Your task to perform on an android device: Add "lenovo thinkpad" to the cart on walmart, then select checkout. Image 0: 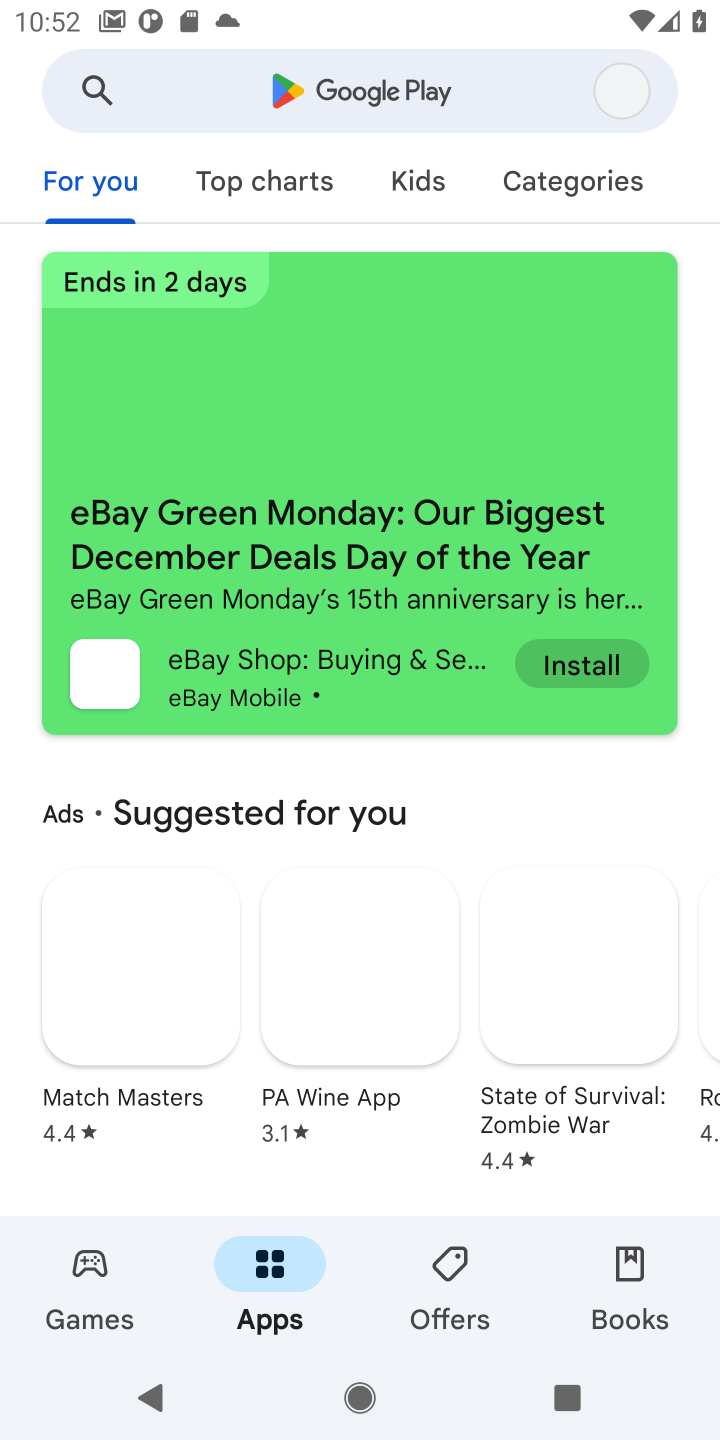
Step 0: click (378, 1209)
Your task to perform on an android device: Add "lenovo thinkpad" to the cart on walmart, then select checkout. Image 1: 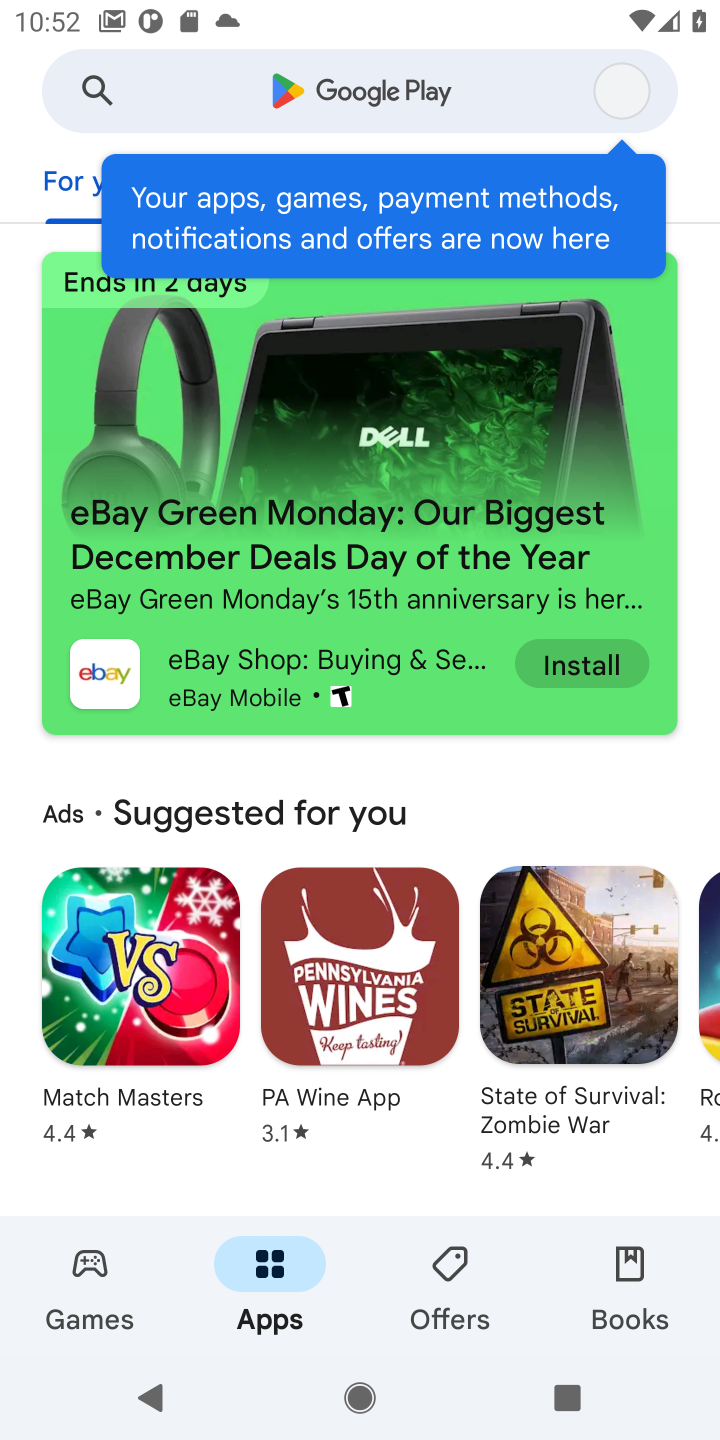
Step 1: press home button
Your task to perform on an android device: Add "lenovo thinkpad" to the cart on walmart, then select checkout. Image 2: 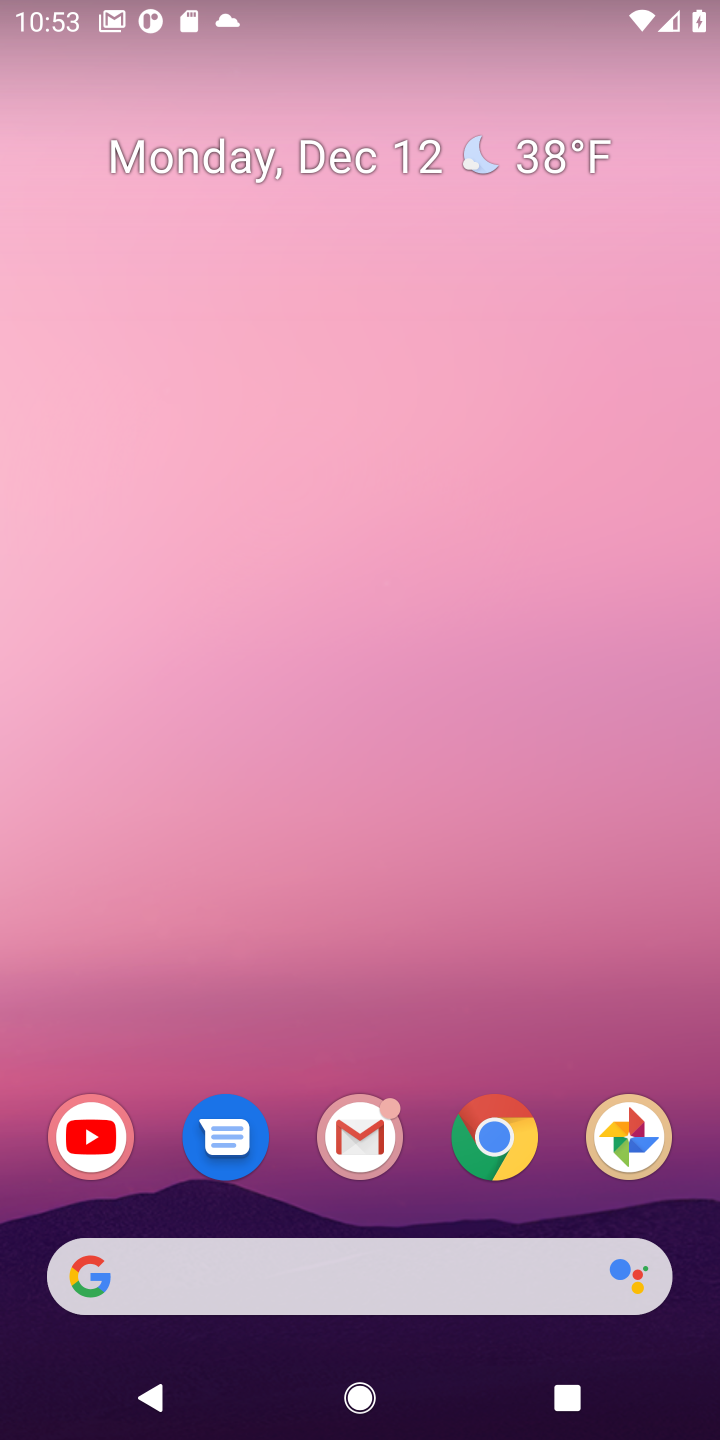
Step 2: click (328, 1270)
Your task to perform on an android device: Add "lenovo thinkpad" to the cart on walmart, then select checkout. Image 3: 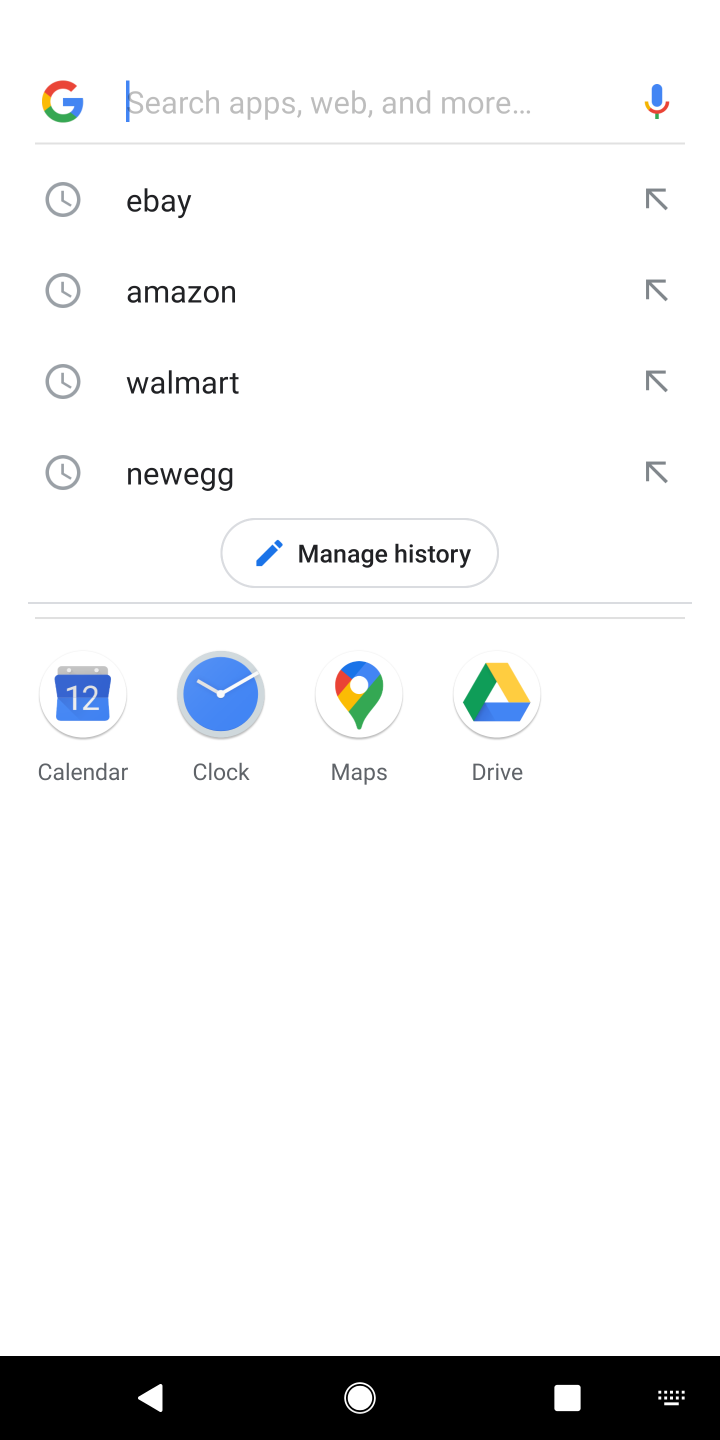
Step 3: click (159, 370)
Your task to perform on an android device: Add "lenovo thinkpad" to the cart on walmart, then select checkout. Image 4: 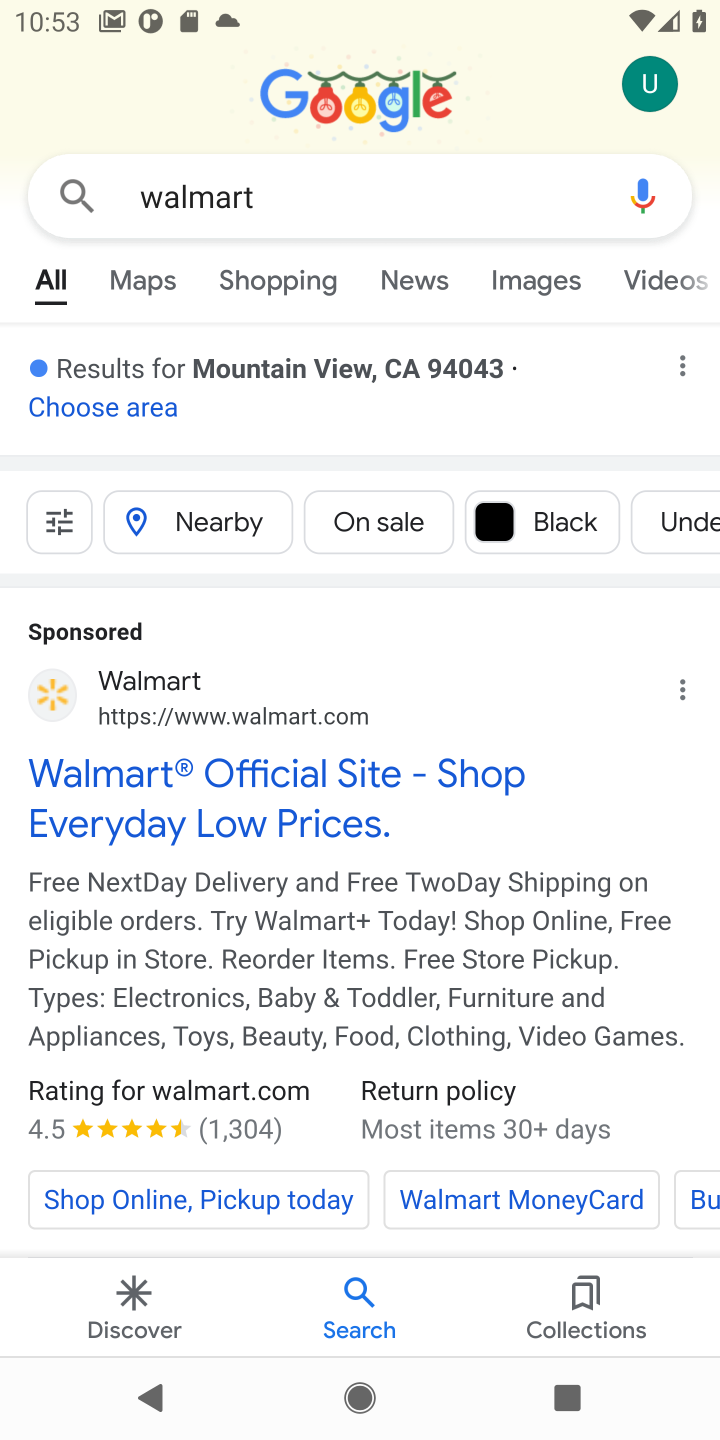
Step 4: click (193, 756)
Your task to perform on an android device: Add "lenovo thinkpad" to the cart on walmart, then select checkout. Image 5: 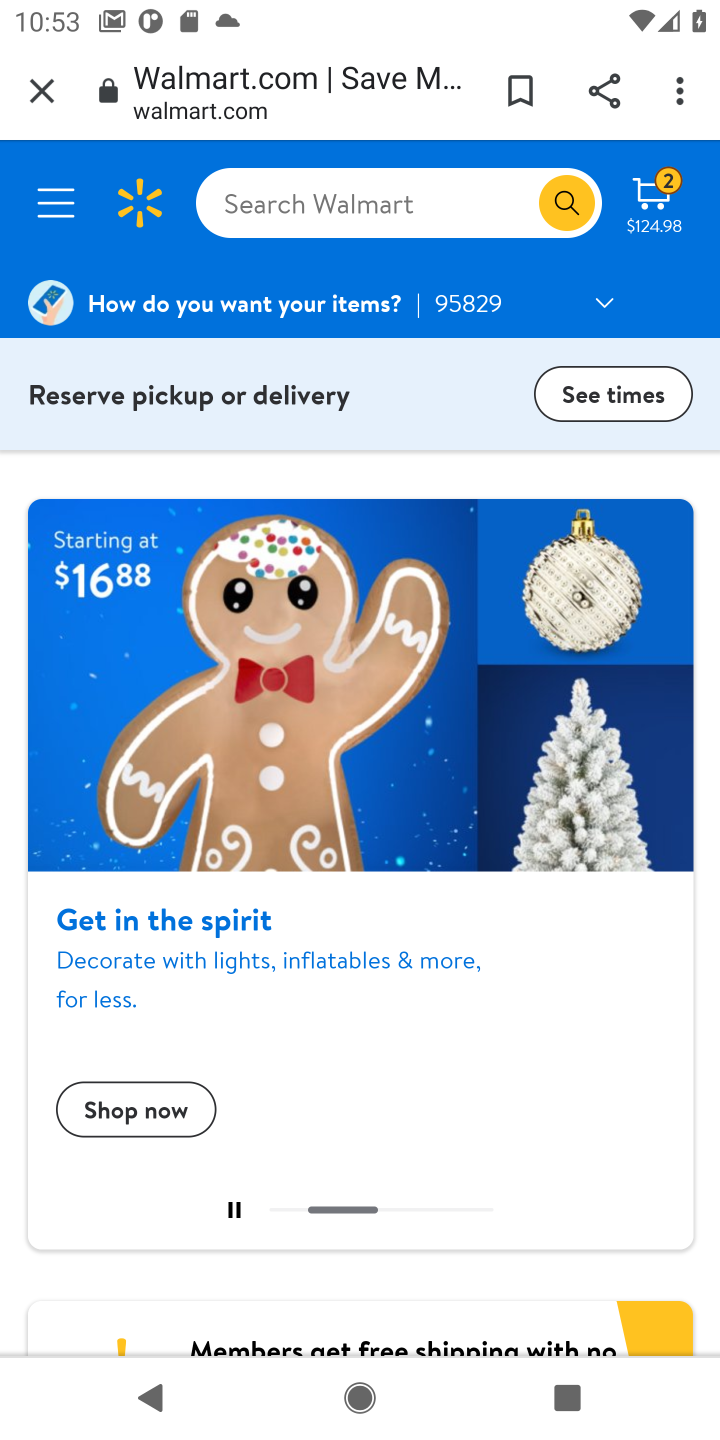
Step 5: click (314, 225)
Your task to perform on an android device: Add "lenovo thinkpad" to the cart on walmart, then select checkout. Image 6: 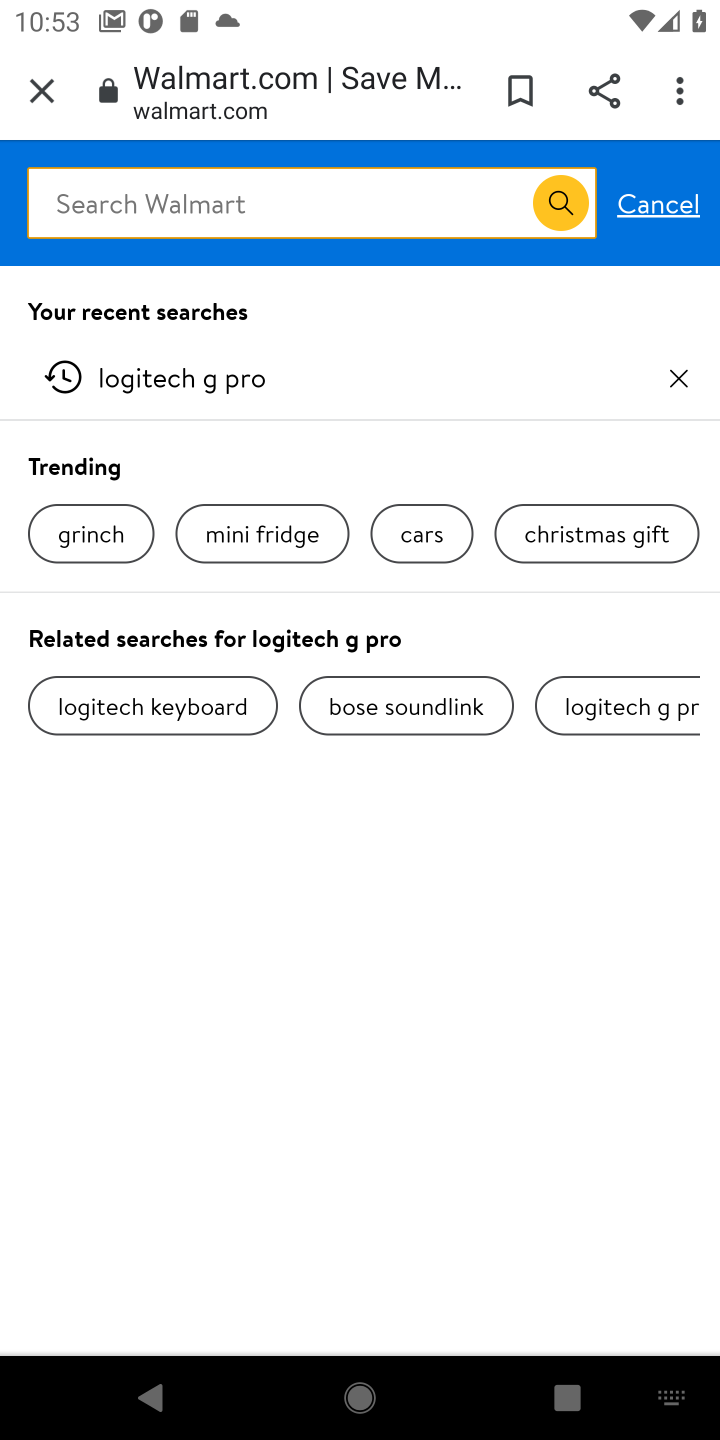
Step 6: type "lenovo thinkpad"
Your task to perform on an android device: Add "lenovo thinkpad" to the cart on walmart, then select checkout. Image 7: 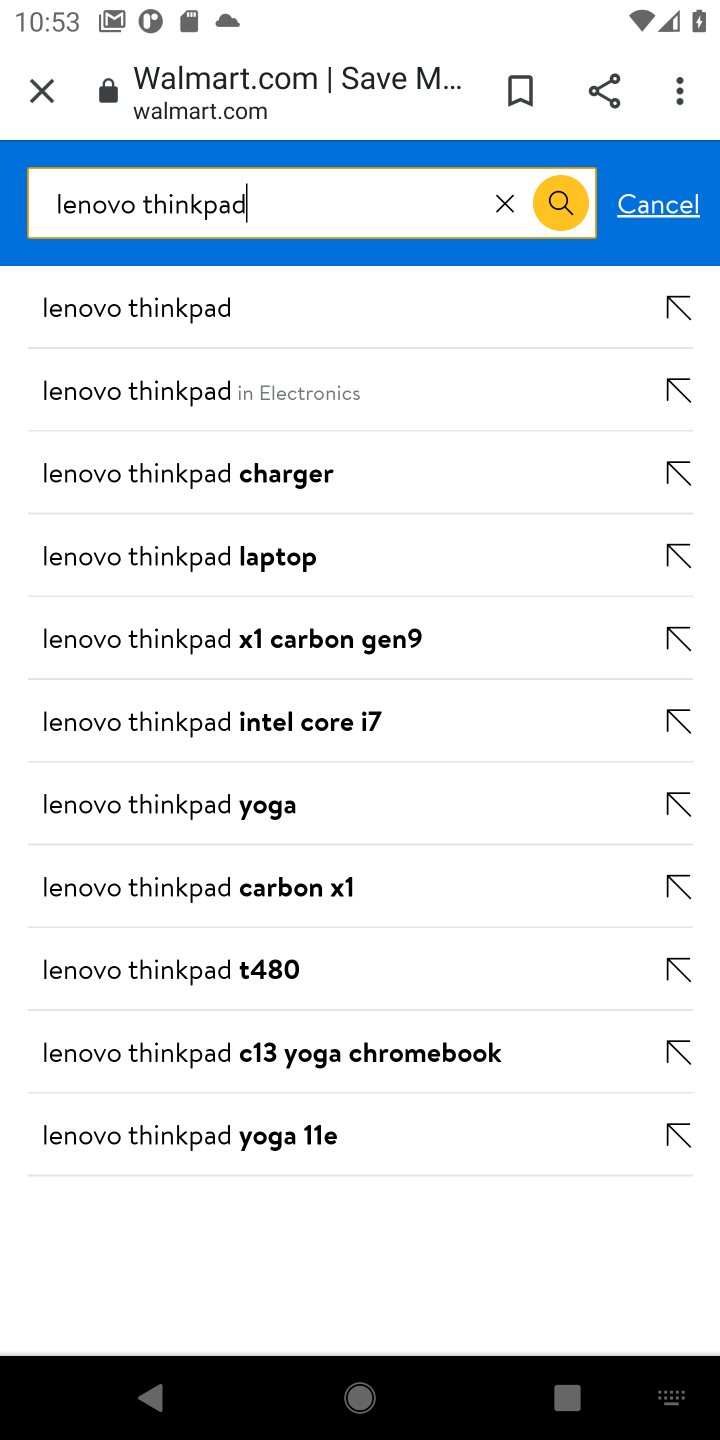
Step 7: click (188, 307)
Your task to perform on an android device: Add "lenovo thinkpad" to the cart on walmart, then select checkout. Image 8: 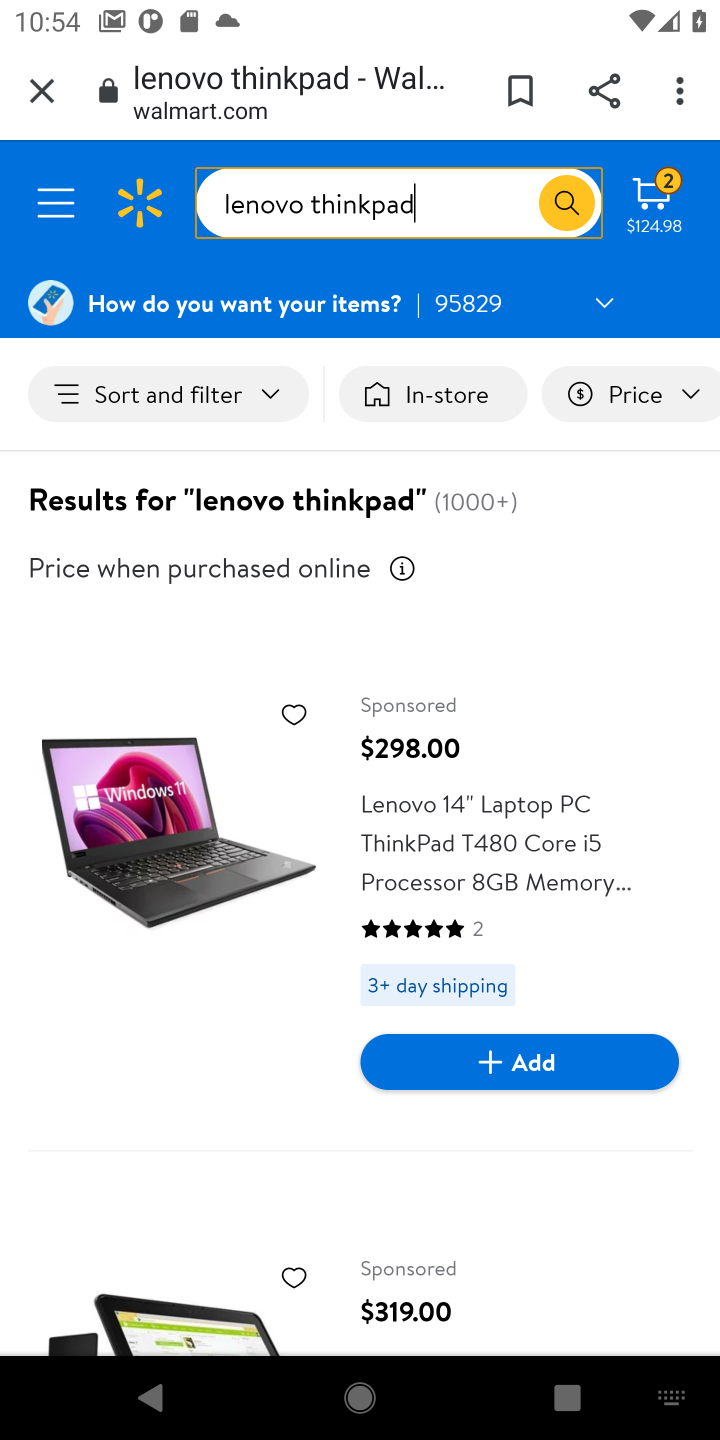
Step 8: click (450, 1079)
Your task to perform on an android device: Add "lenovo thinkpad" to the cart on walmart, then select checkout. Image 9: 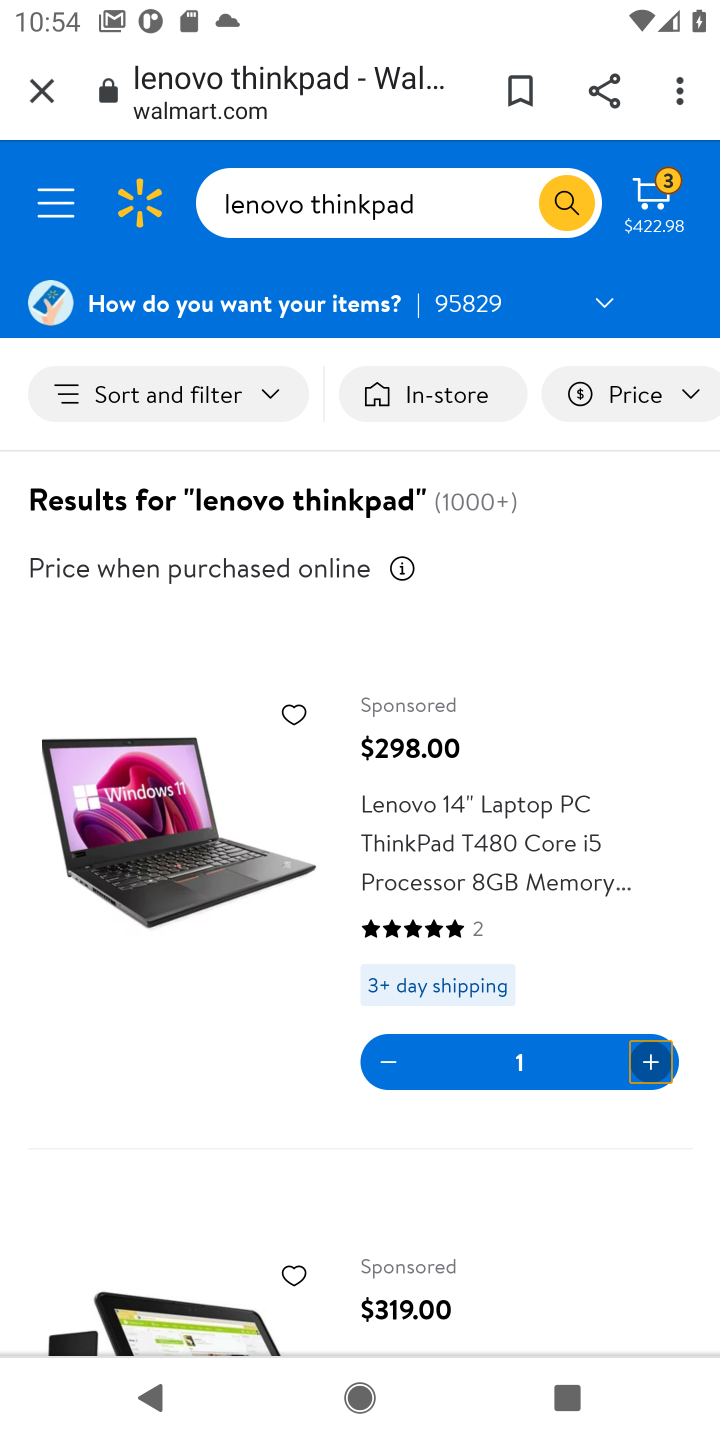
Step 9: task complete